Your task to perform on an android device: Is it going to rain this weekend? Image 0: 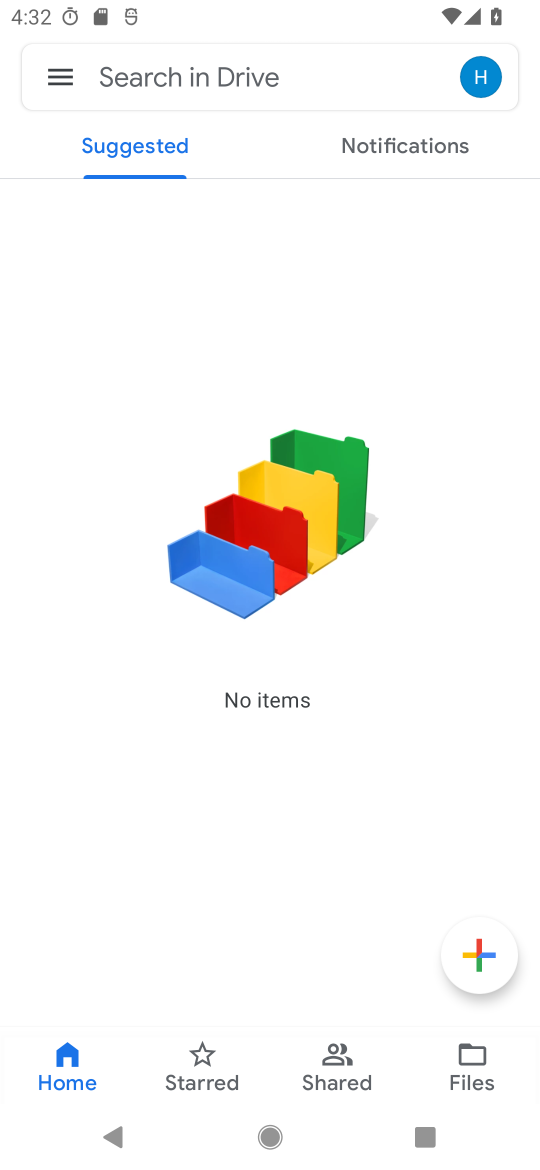
Step 0: press home button
Your task to perform on an android device: Is it going to rain this weekend? Image 1: 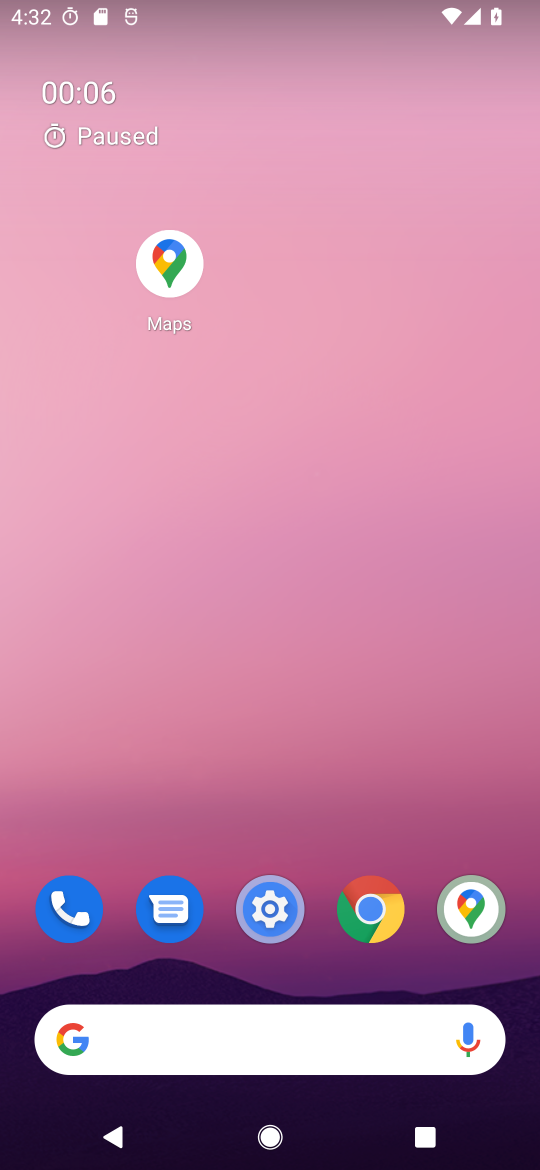
Step 1: click (233, 964)
Your task to perform on an android device: Is it going to rain this weekend? Image 2: 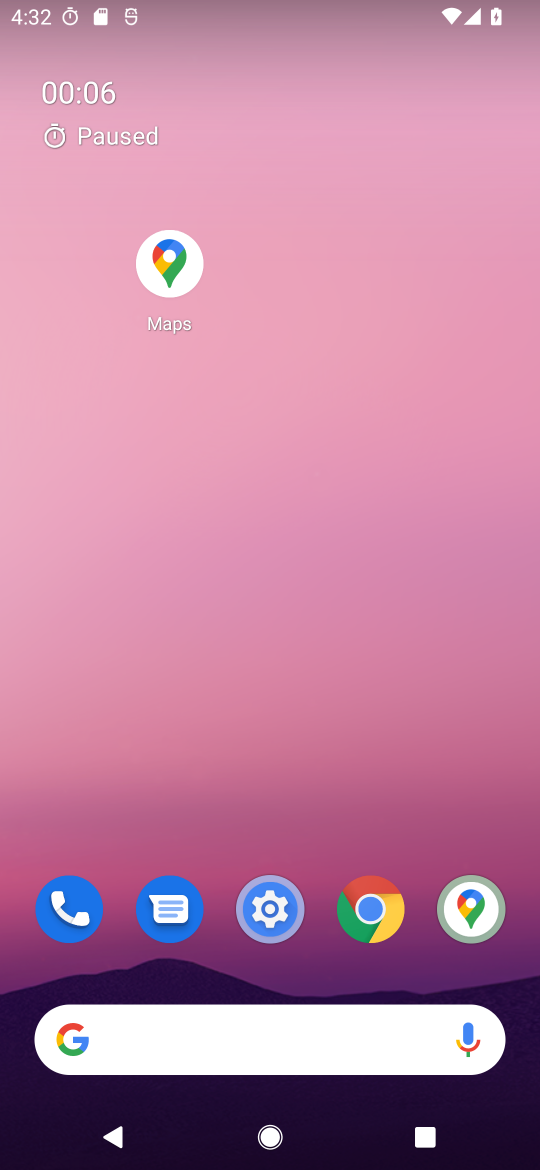
Step 2: drag from (309, 930) to (302, 240)
Your task to perform on an android device: Is it going to rain this weekend? Image 3: 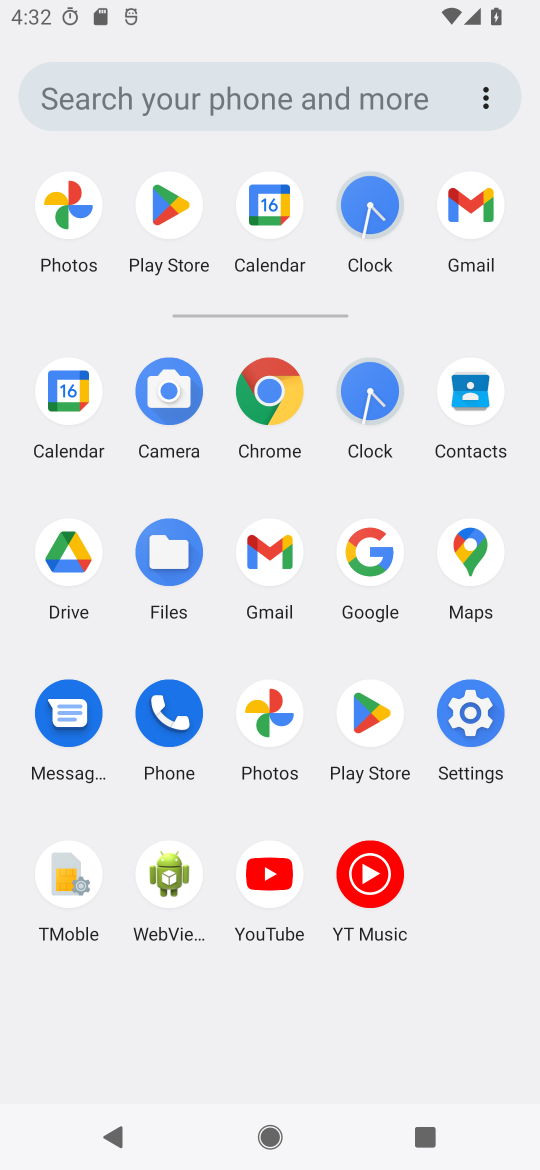
Step 3: click (361, 555)
Your task to perform on an android device: Is it going to rain this weekend? Image 4: 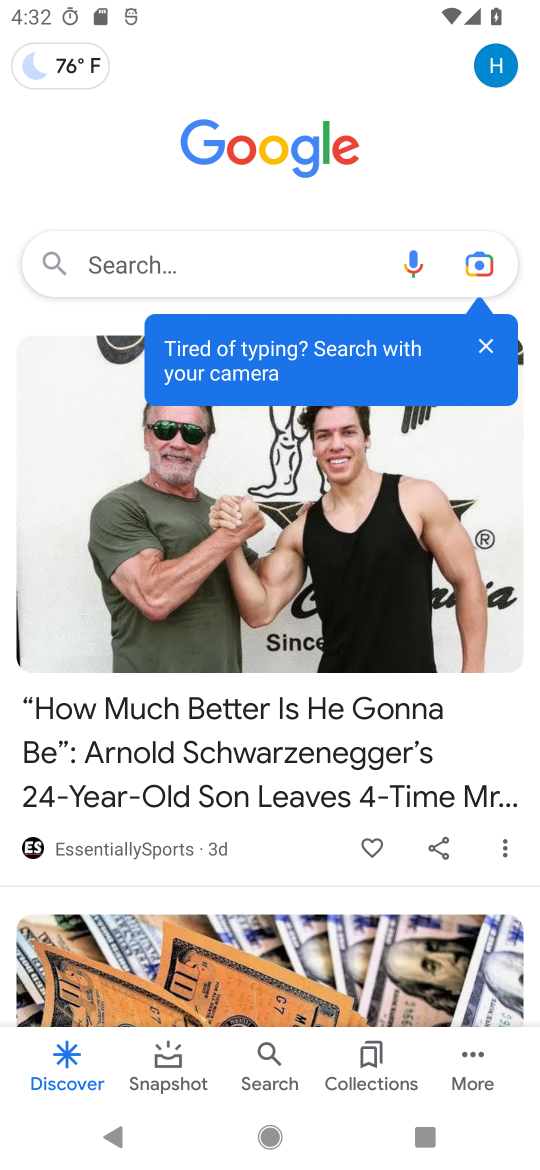
Step 4: click (192, 248)
Your task to perform on an android device: Is it going to rain this weekend? Image 5: 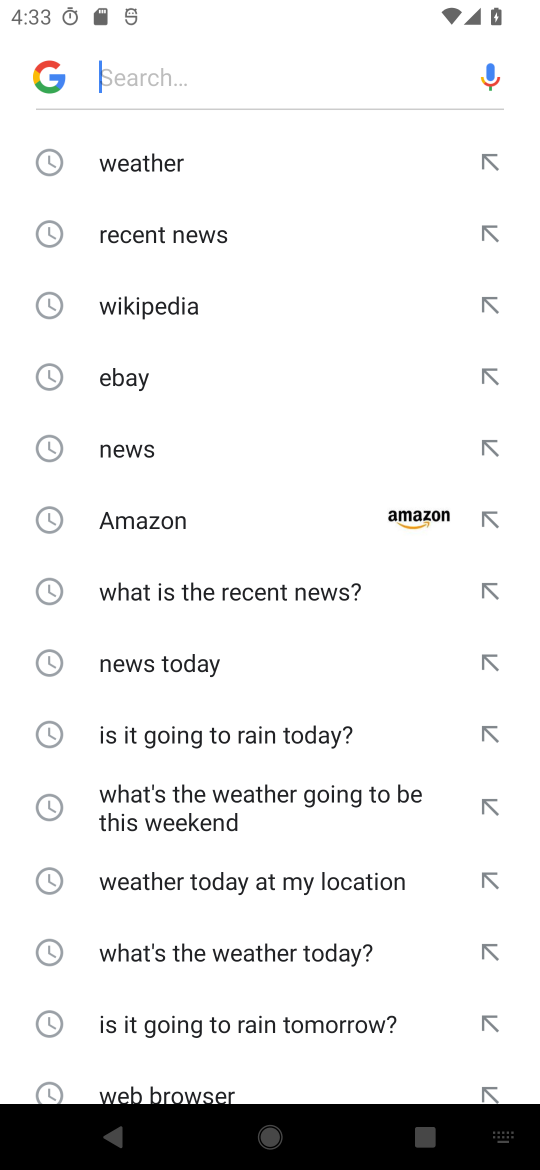
Step 5: click (146, 164)
Your task to perform on an android device: Is it going to rain this weekend? Image 6: 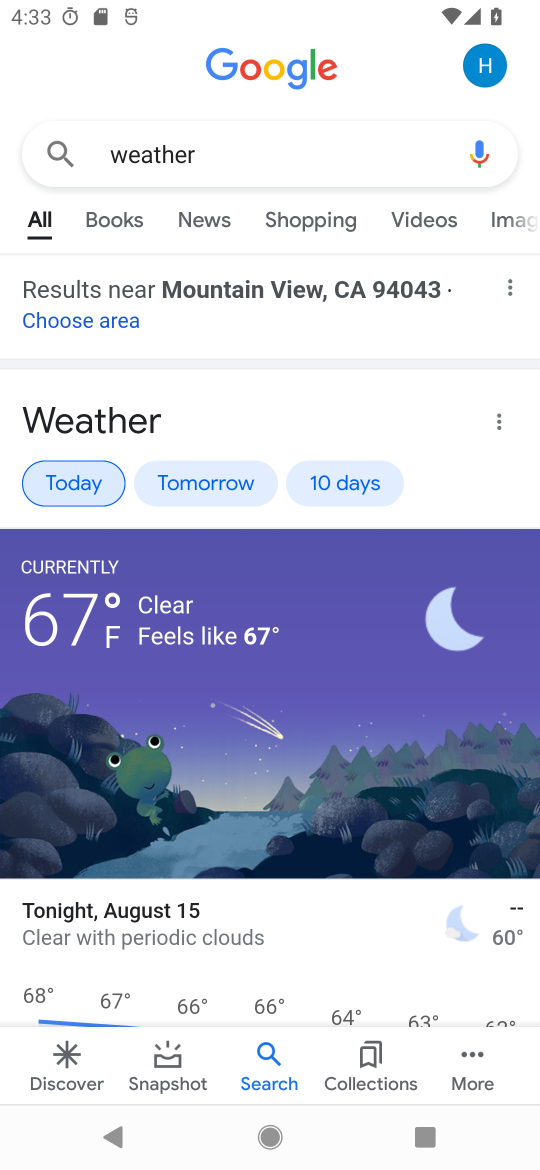
Step 6: task complete